Your task to perform on an android device: Open notification settings Image 0: 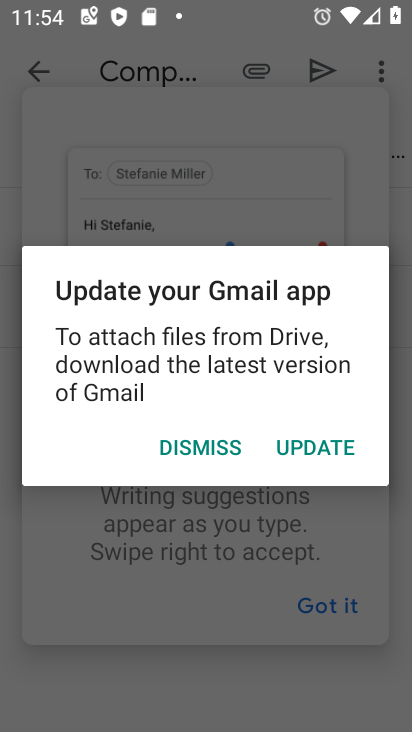
Step 0: press home button
Your task to perform on an android device: Open notification settings Image 1: 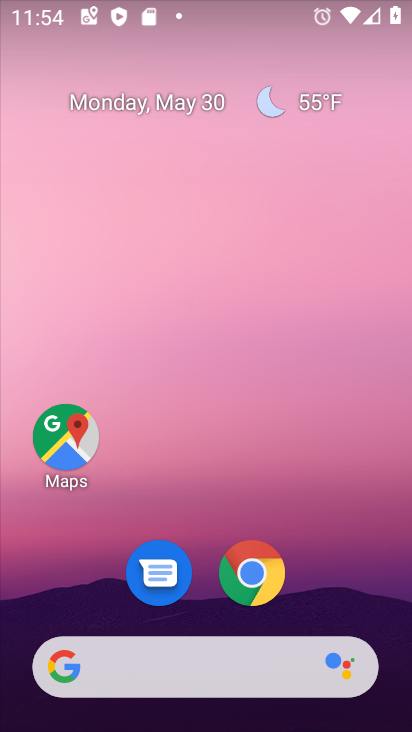
Step 1: drag from (121, 731) to (140, 40)
Your task to perform on an android device: Open notification settings Image 2: 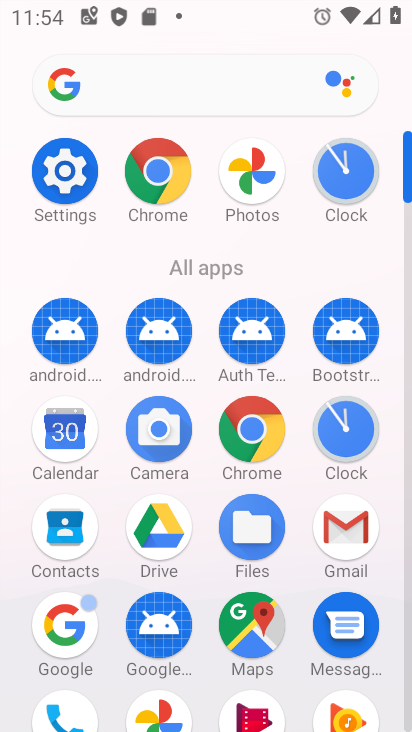
Step 2: click (62, 195)
Your task to perform on an android device: Open notification settings Image 3: 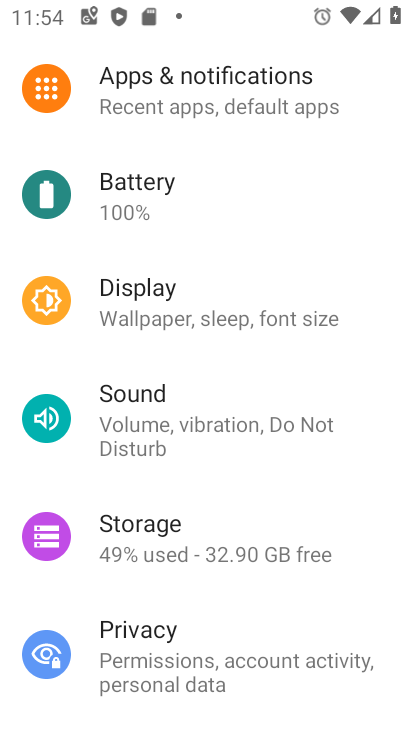
Step 3: click (252, 103)
Your task to perform on an android device: Open notification settings Image 4: 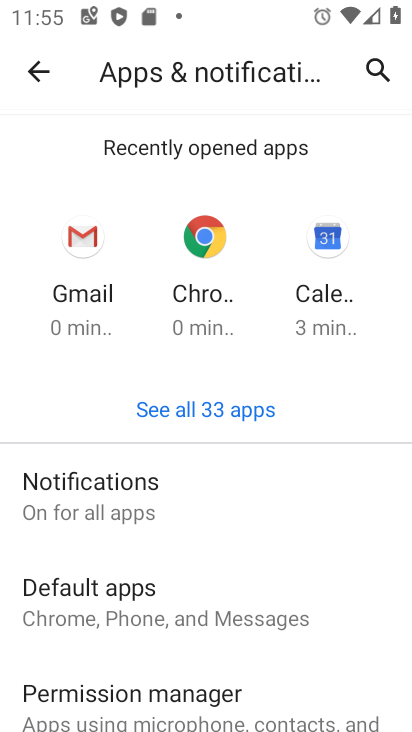
Step 4: task complete